Your task to perform on an android device: Open calendar and show me the fourth week of next month Image 0: 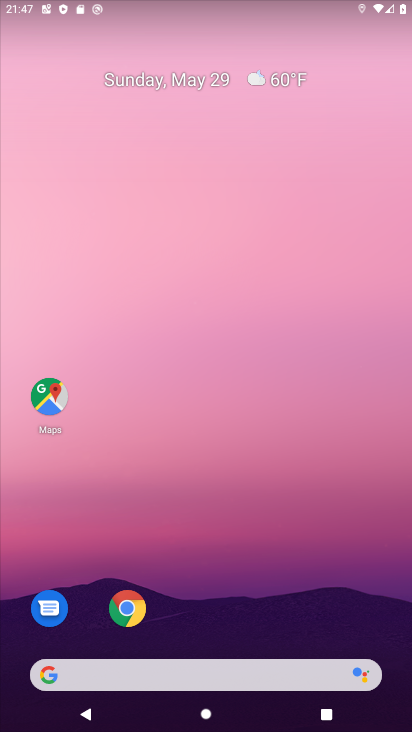
Step 0: drag from (357, 605) to (362, 195)
Your task to perform on an android device: Open calendar and show me the fourth week of next month Image 1: 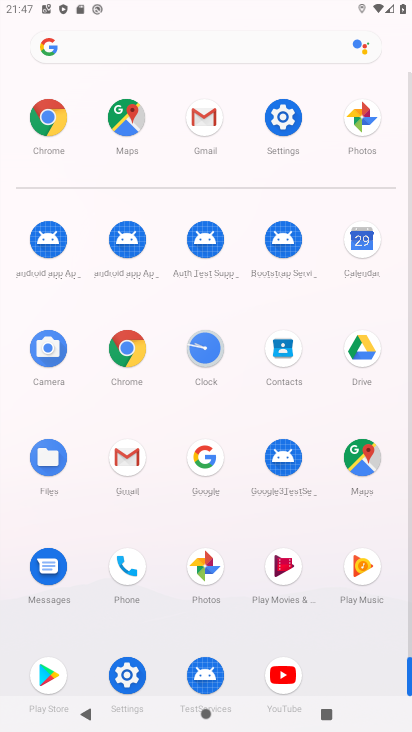
Step 1: click (363, 253)
Your task to perform on an android device: Open calendar and show me the fourth week of next month Image 2: 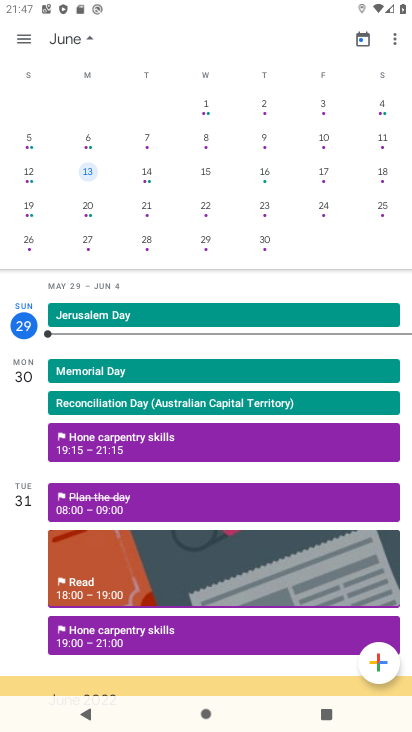
Step 2: click (90, 208)
Your task to perform on an android device: Open calendar and show me the fourth week of next month Image 3: 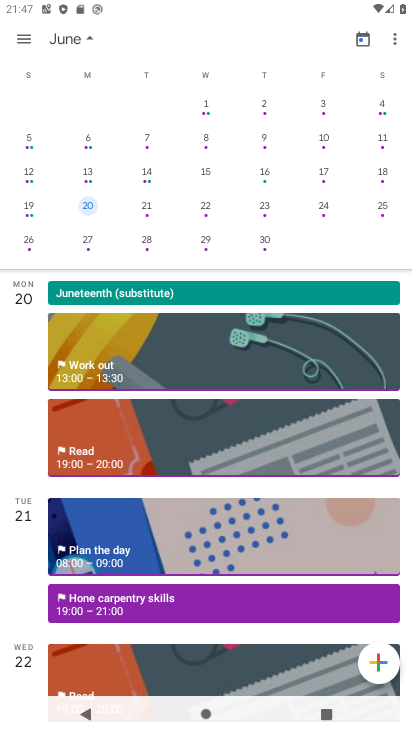
Step 3: task complete